Your task to perform on an android device: open wifi settings Image 0: 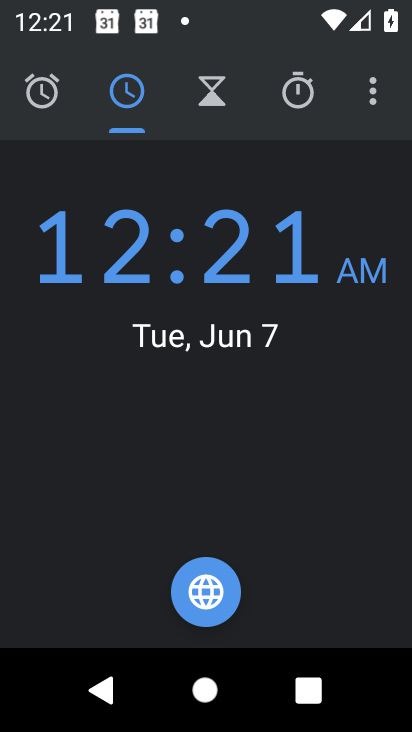
Step 0: drag from (203, 27) to (252, 428)
Your task to perform on an android device: open wifi settings Image 1: 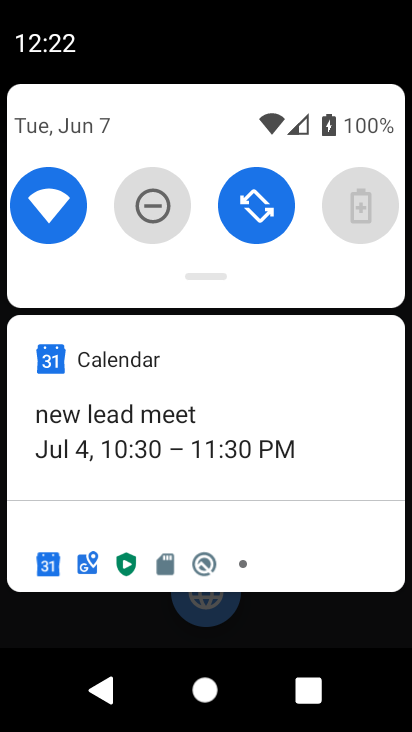
Step 1: click (51, 209)
Your task to perform on an android device: open wifi settings Image 2: 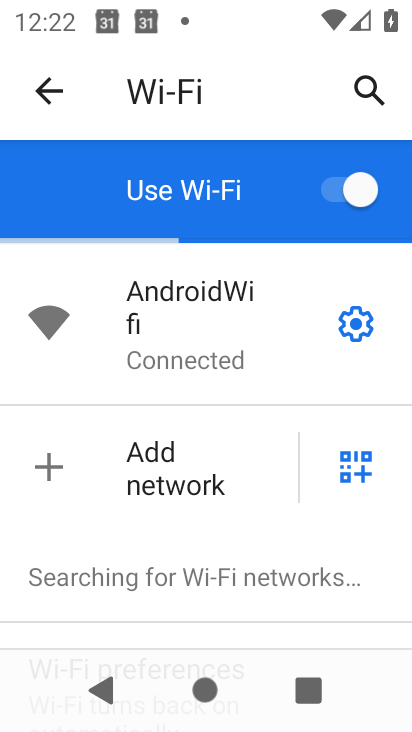
Step 2: task complete